Your task to perform on an android device: Go to Google maps Image 0: 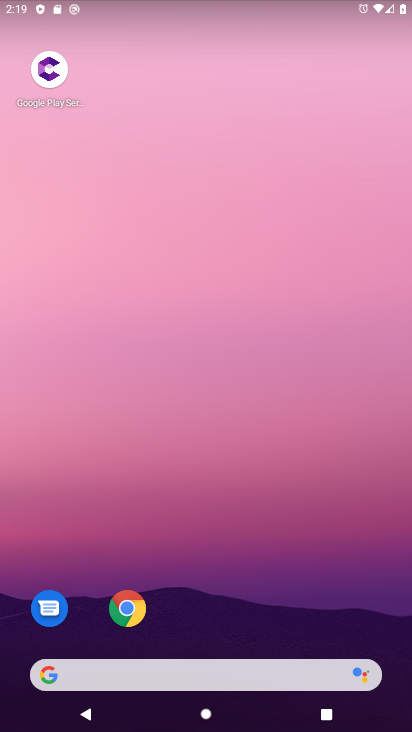
Step 0: drag from (239, 720) to (232, 106)
Your task to perform on an android device: Go to Google maps Image 1: 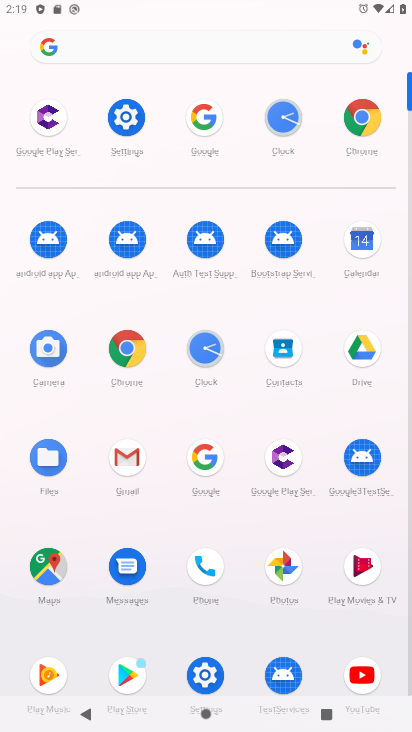
Step 1: click (43, 566)
Your task to perform on an android device: Go to Google maps Image 2: 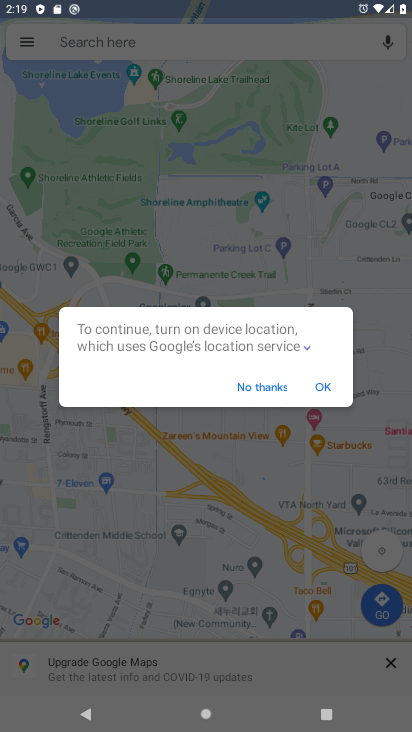
Step 2: click (270, 385)
Your task to perform on an android device: Go to Google maps Image 3: 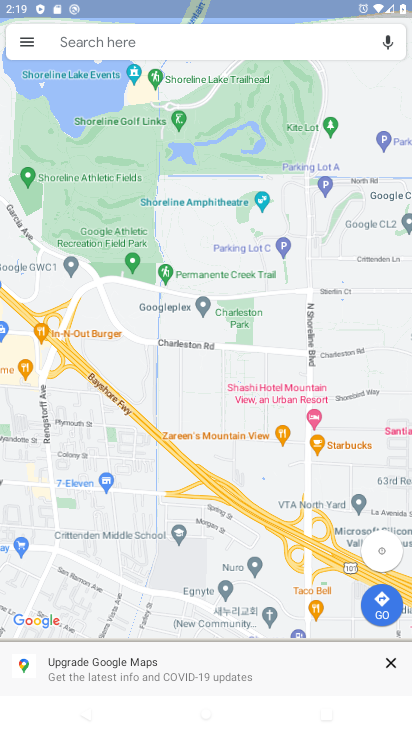
Step 3: task complete